Your task to perform on an android device: Do I have any events tomorrow? Image 0: 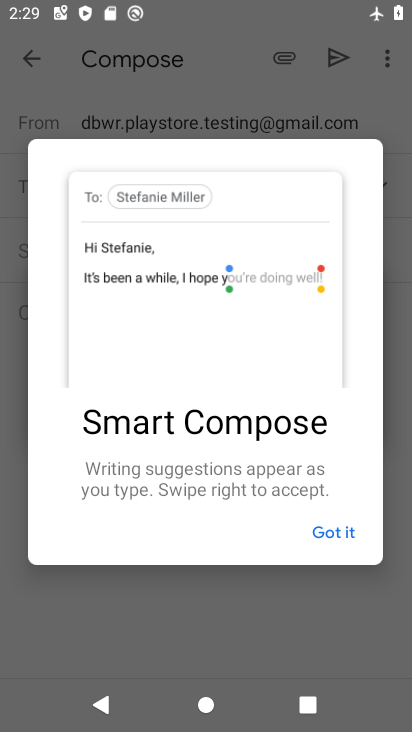
Step 0: press home button
Your task to perform on an android device: Do I have any events tomorrow? Image 1: 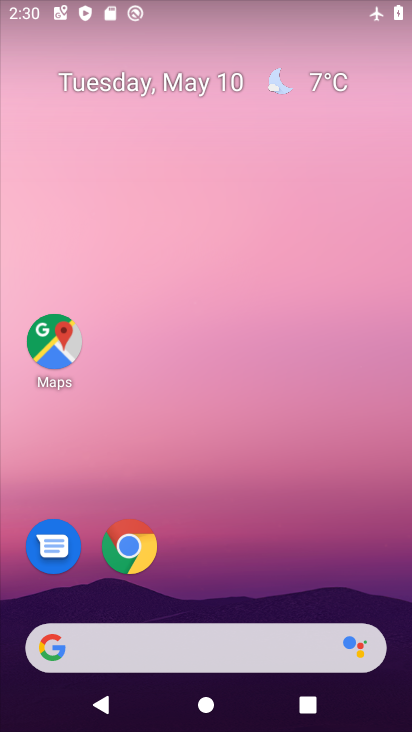
Step 1: drag from (314, 504) to (246, 50)
Your task to perform on an android device: Do I have any events tomorrow? Image 2: 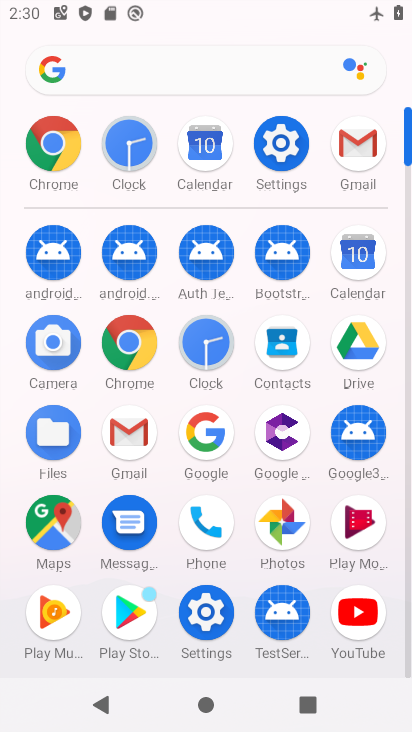
Step 2: click (367, 273)
Your task to perform on an android device: Do I have any events tomorrow? Image 3: 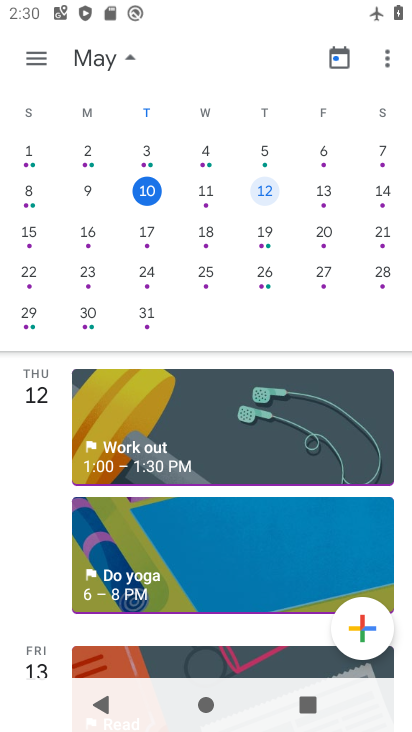
Step 3: click (208, 198)
Your task to perform on an android device: Do I have any events tomorrow? Image 4: 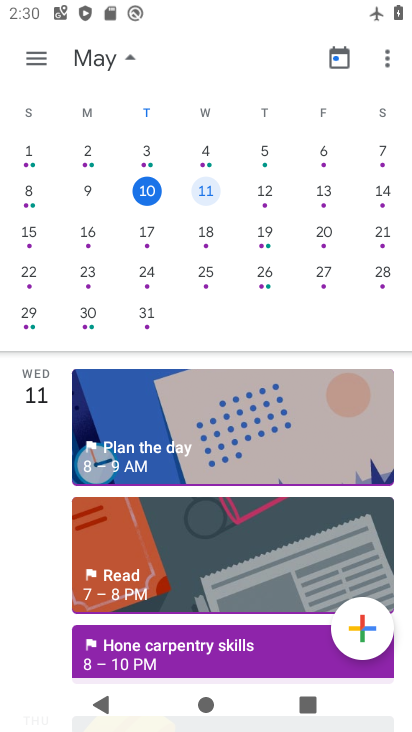
Step 4: task complete